Your task to perform on an android device: check android version Image 0: 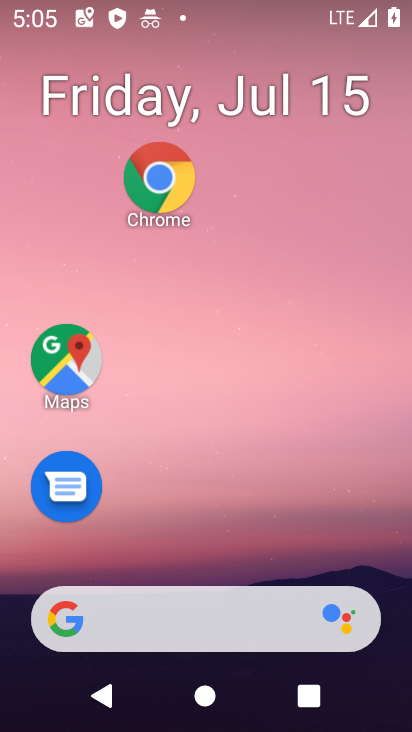
Step 0: drag from (208, 209) to (201, 89)
Your task to perform on an android device: check android version Image 1: 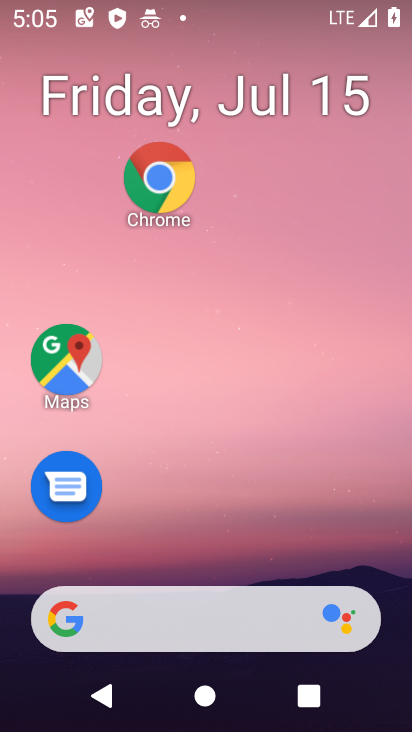
Step 1: drag from (245, 315) to (247, 106)
Your task to perform on an android device: check android version Image 2: 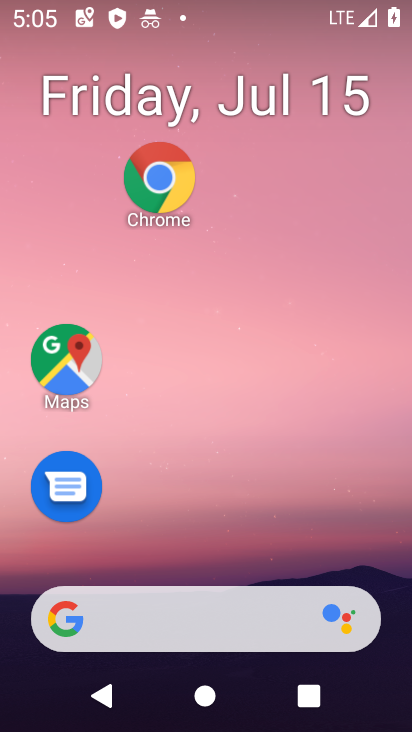
Step 2: drag from (247, 556) to (232, 26)
Your task to perform on an android device: check android version Image 3: 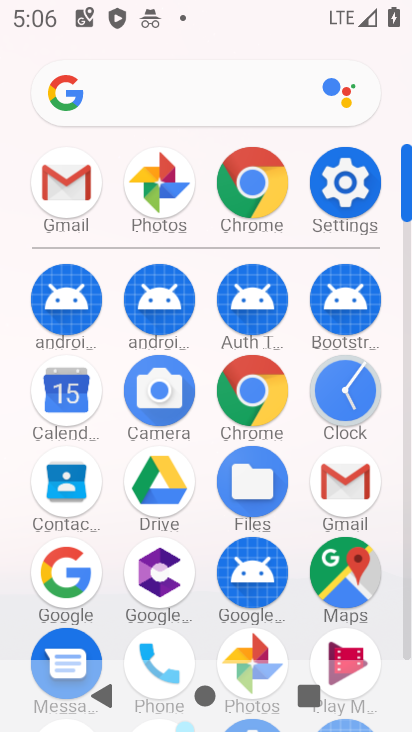
Step 3: click (340, 181)
Your task to perform on an android device: check android version Image 4: 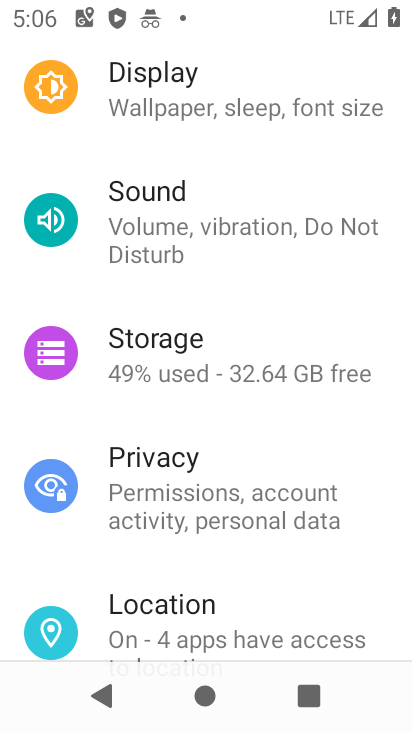
Step 4: drag from (208, 518) to (197, 41)
Your task to perform on an android device: check android version Image 5: 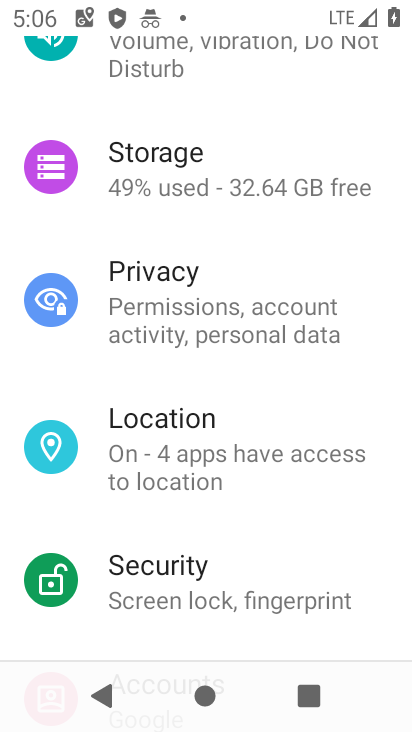
Step 5: drag from (296, 511) to (252, 20)
Your task to perform on an android device: check android version Image 6: 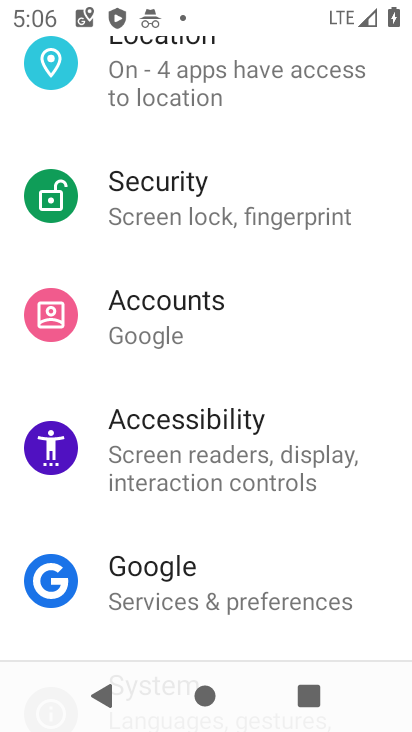
Step 6: drag from (222, 529) to (194, 41)
Your task to perform on an android device: check android version Image 7: 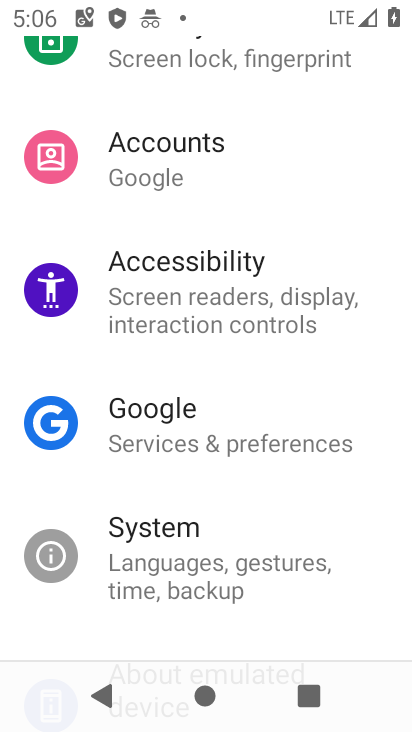
Step 7: drag from (240, 559) to (227, 66)
Your task to perform on an android device: check android version Image 8: 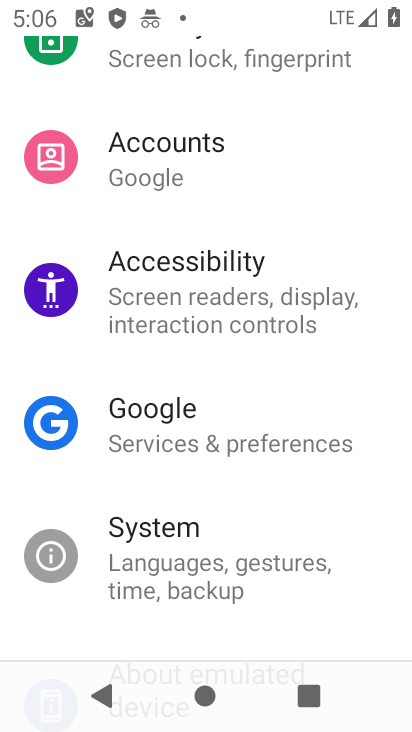
Step 8: drag from (236, 350) to (231, 149)
Your task to perform on an android device: check android version Image 9: 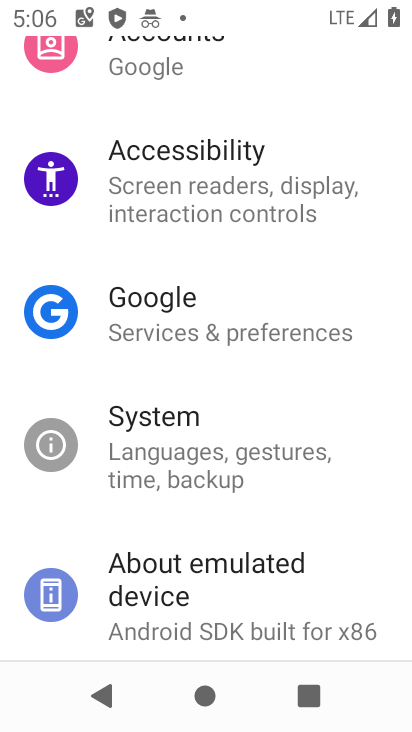
Step 9: click (171, 608)
Your task to perform on an android device: check android version Image 10: 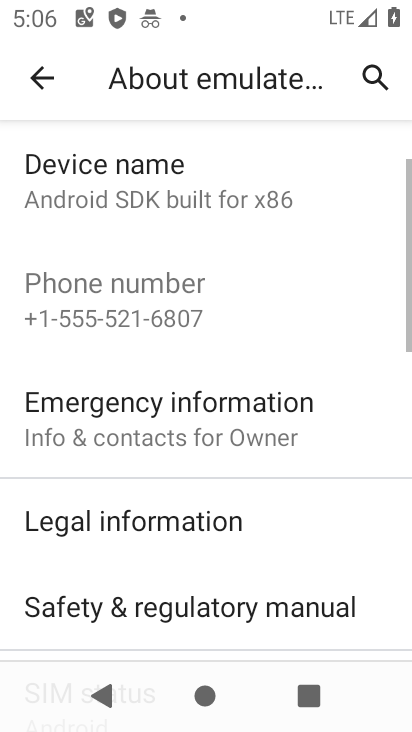
Step 10: task complete